Your task to perform on an android device: Open the stopwatch Image 0: 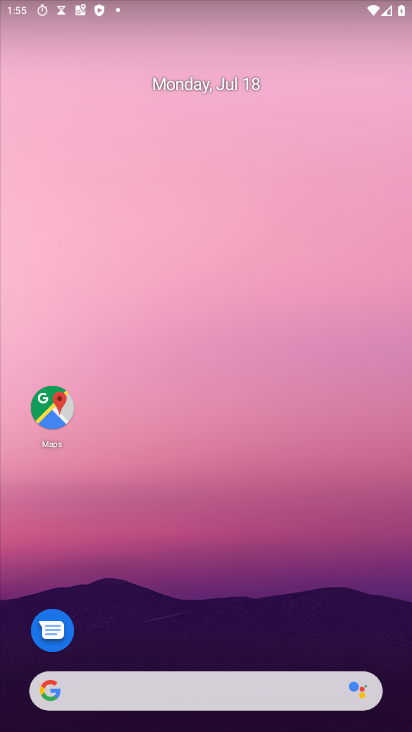
Step 0: drag from (372, 552) to (359, 101)
Your task to perform on an android device: Open the stopwatch Image 1: 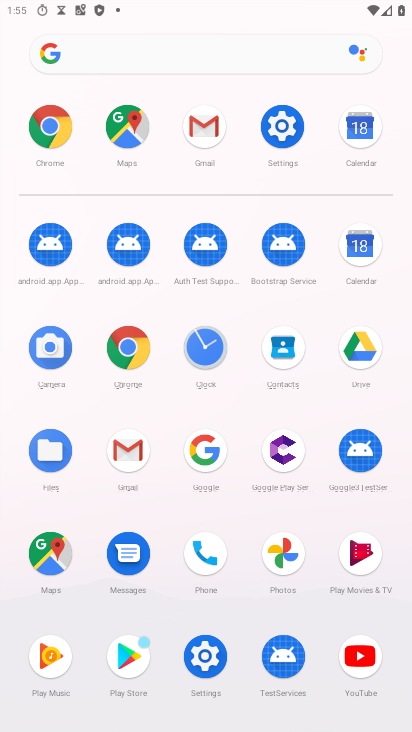
Step 1: click (199, 344)
Your task to perform on an android device: Open the stopwatch Image 2: 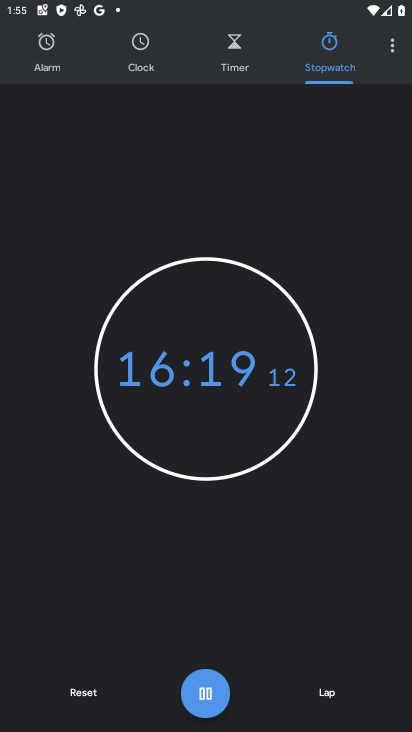
Step 2: click (334, 59)
Your task to perform on an android device: Open the stopwatch Image 3: 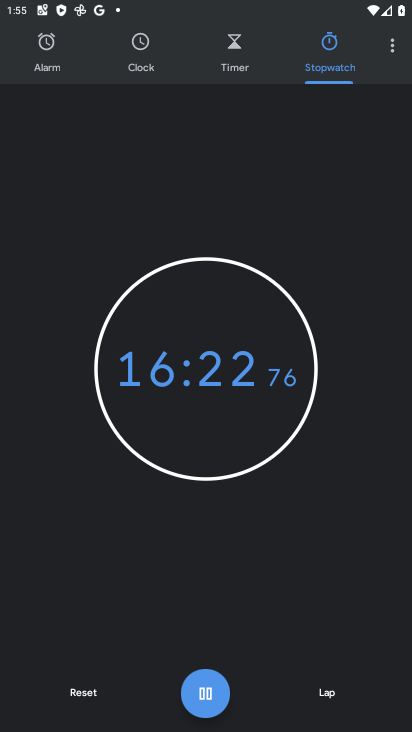
Step 3: task complete